Your task to perform on an android device: open app "Messages" Image 0: 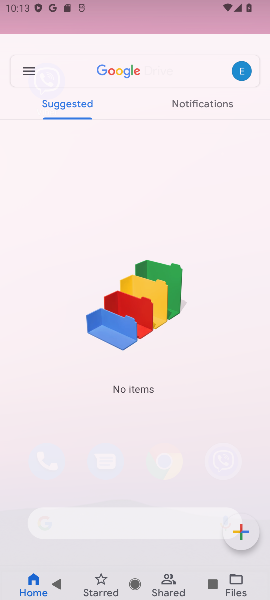
Step 0: click (183, 355)
Your task to perform on an android device: open app "Messages" Image 1: 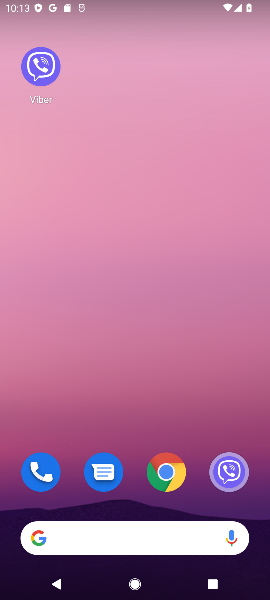
Step 1: click (105, 475)
Your task to perform on an android device: open app "Messages" Image 2: 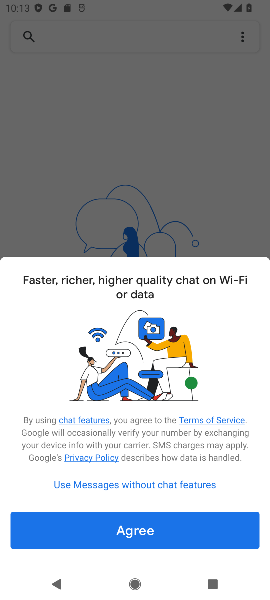
Step 2: click (137, 521)
Your task to perform on an android device: open app "Messages" Image 3: 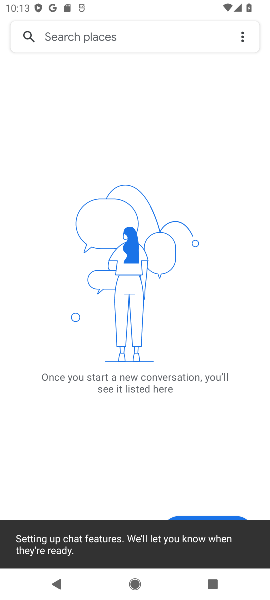
Step 3: task complete